Your task to perform on an android device: open the mobile data screen to see how much data has been used Image 0: 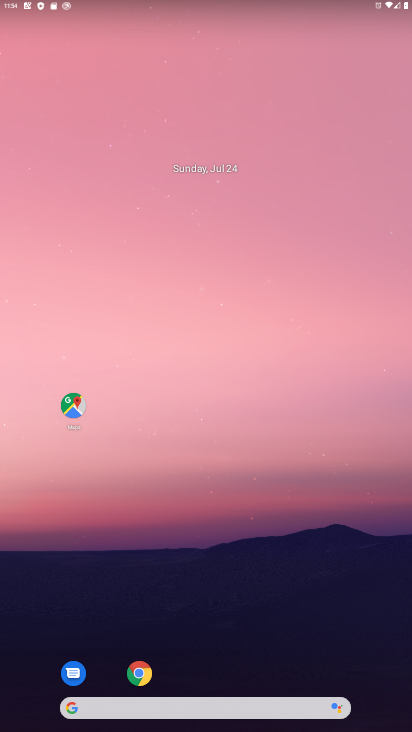
Step 0: drag from (303, 609) to (221, 75)
Your task to perform on an android device: open the mobile data screen to see how much data has been used Image 1: 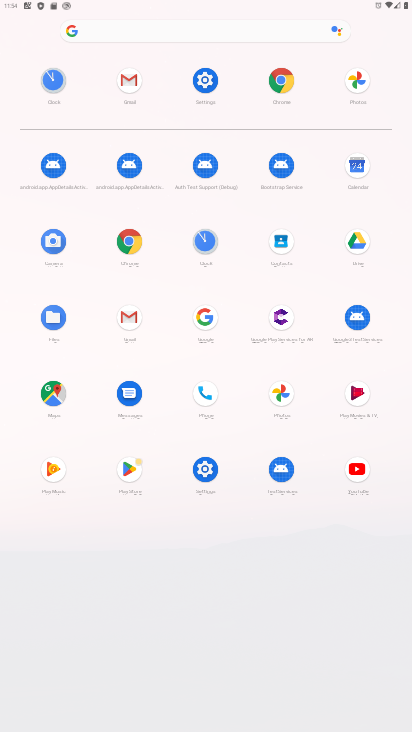
Step 1: click (208, 72)
Your task to perform on an android device: open the mobile data screen to see how much data has been used Image 2: 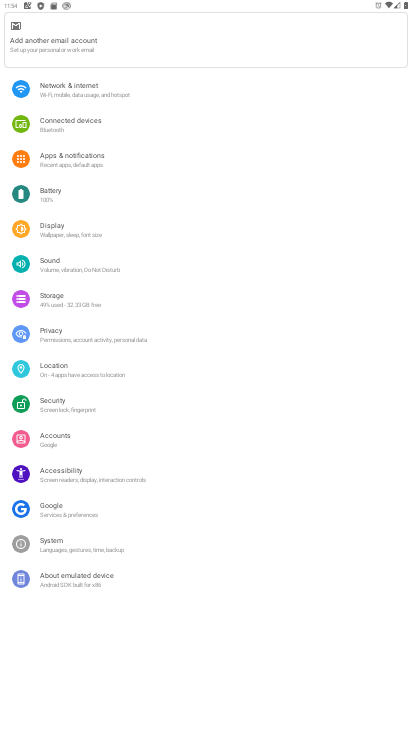
Step 2: click (97, 87)
Your task to perform on an android device: open the mobile data screen to see how much data has been used Image 3: 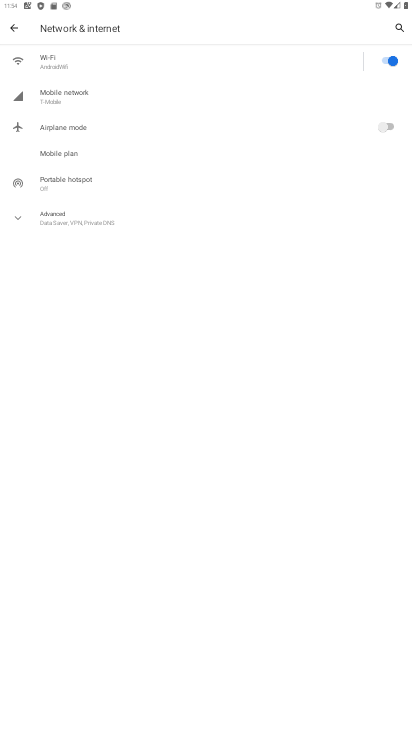
Step 3: click (97, 87)
Your task to perform on an android device: open the mobile data screen to see how much data has been used Image 4: 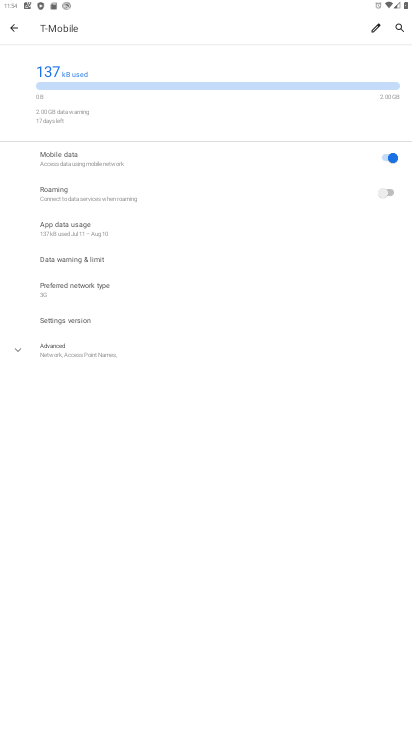
Step 4: task complete